Your task to perform on an android device: create a new album in the google photos Image 0: 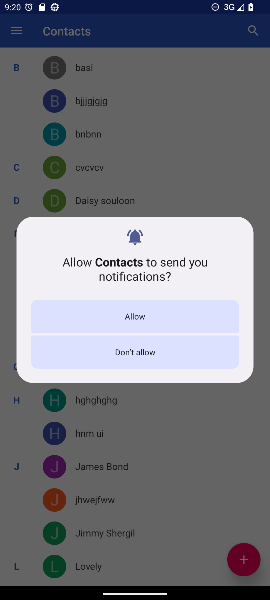
Step 0: press home button
Your task to perform on an android device: create a new album in the google photos Image 1: 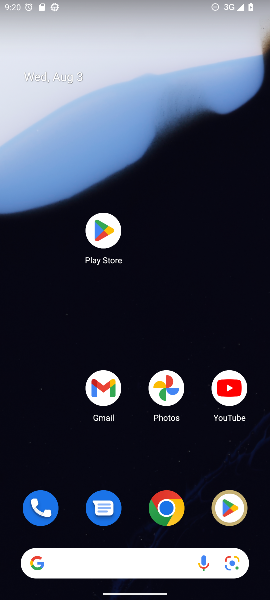
Step 1: drag from (144, 552) to (130, 66)
Your task to perform on an android device: create a new album in the google photos Image 2: 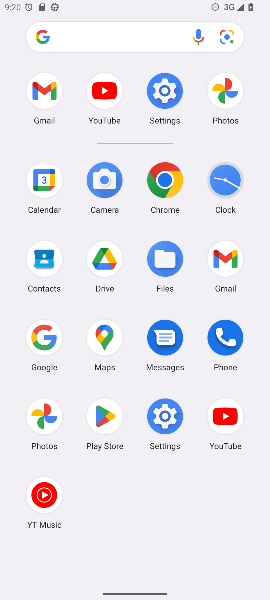
Step 2: click (227, 87)
Your task to perform on an android device: create a new album in the google photos Image 3: 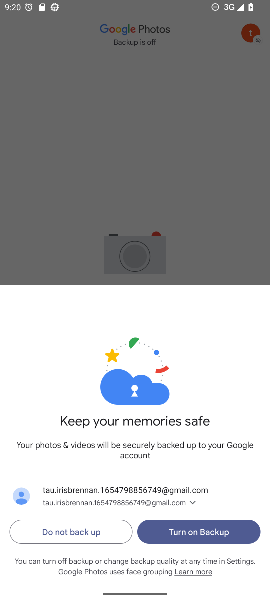
Step 3: click (178, 536)
Your task to perform on an android device: create a new album in the google photos Image 4: 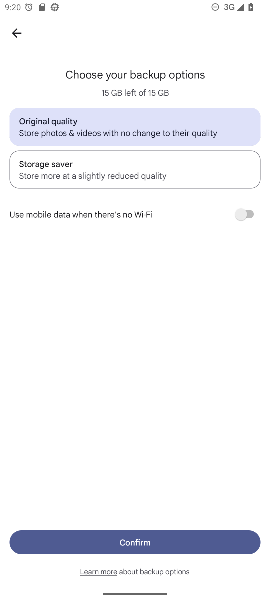
Step 4: click (148, 541)
Your task to perform on an android device: create a new album in the google photos Image 5: 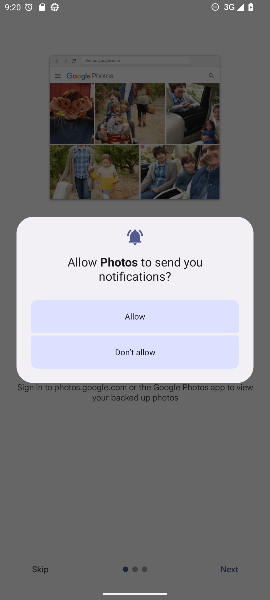
Step 5: click (184, 312)
Your task to perform on an android device: create a new album in the google photos Image 6: 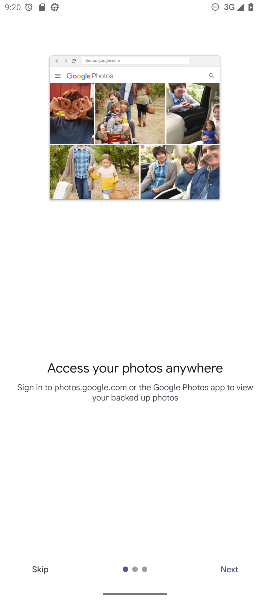
Step 6: click (37, 576)
Your task to perform on an android device: create a new album in the google photos Image 7: 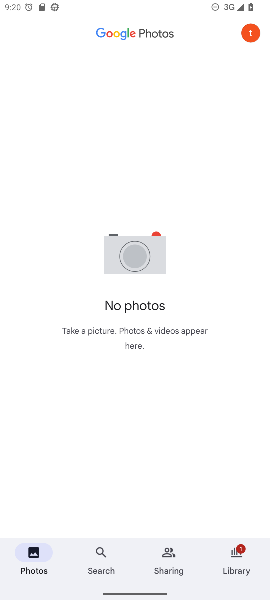
Step 7: task complete